Your task to perform on an android device: turn off javascript in the chrome app Image 0: 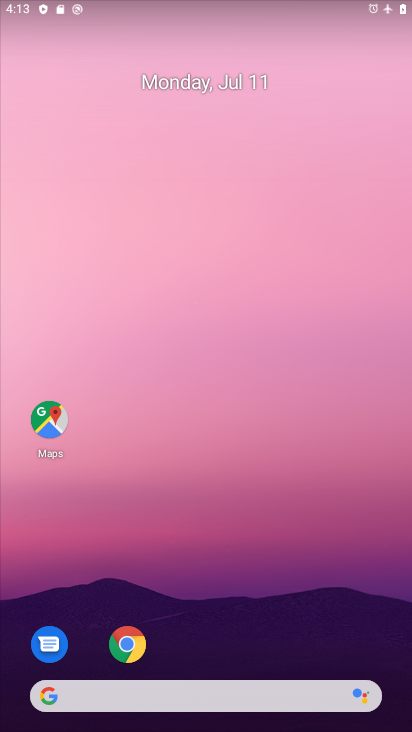
Step 0: drag from (272, 637) to (303, 7)
Your task to perform on an android device: turn off javascript in the chrome app Image 1: 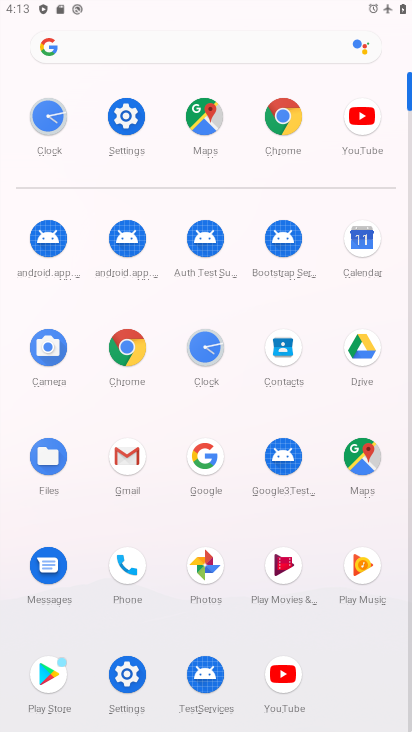
Step 1: click (127, 355)
Your task to perform on an android device: turn off javascript in the chrome app Image 2: 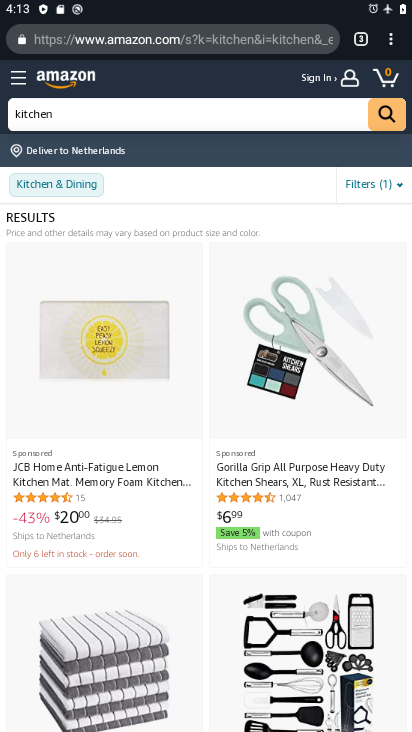
Step 2: drag from (396, 37) to (268, 436)
Your task to perform on an android device: turn off javascript in the chrome app Image 3: 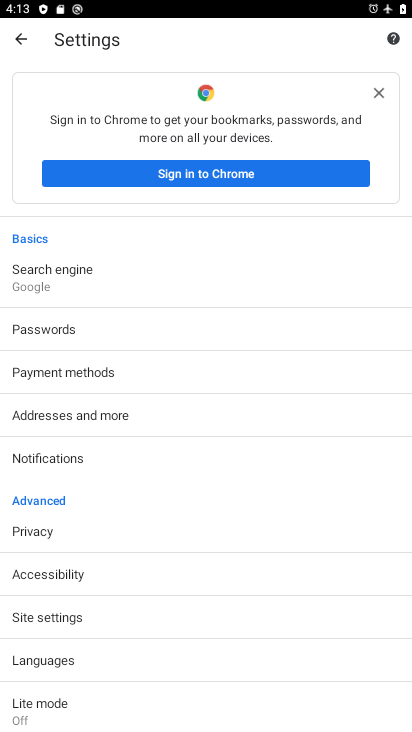
Step 3: click (59, 628)
Your task to perform on an android device: turn off javascript in the chrome app Image 4: 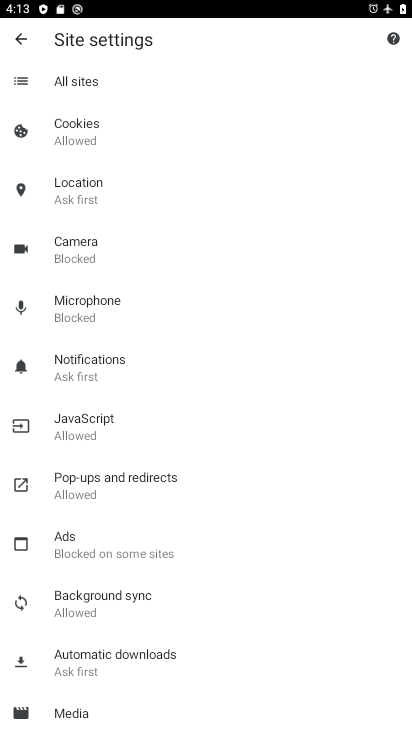
Step 4: click (94, 423)
Your task to perform on an android device: turn off javascript in the chrome app Image 5: 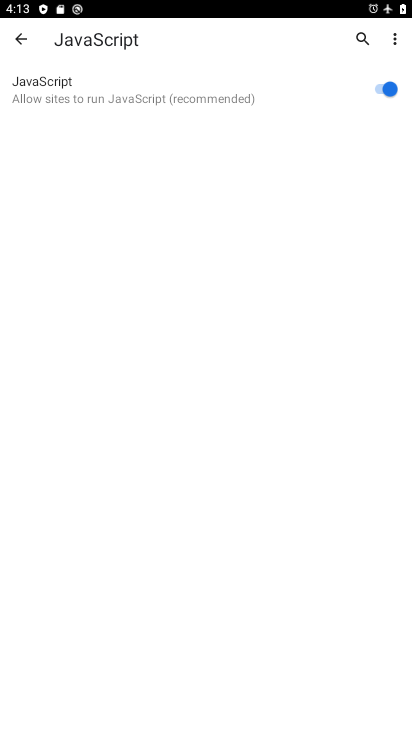
Step 5: click (380, 89)
Your task to perform on an android device: turn off javascript in the chrome app Image 6: 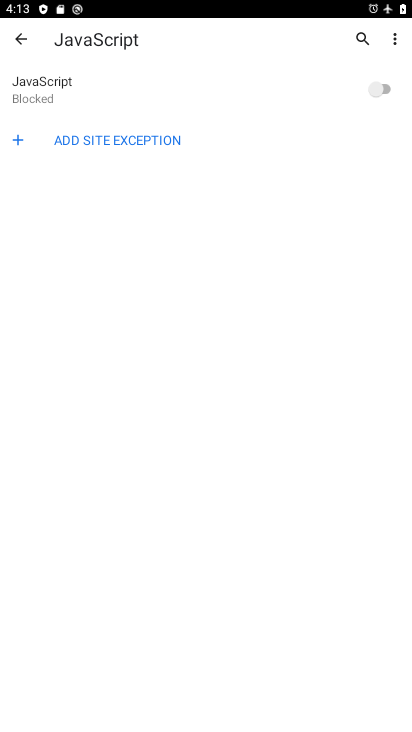
Step 6: task complete